Your task to perform on an android device: What is the recent news? Image 0: 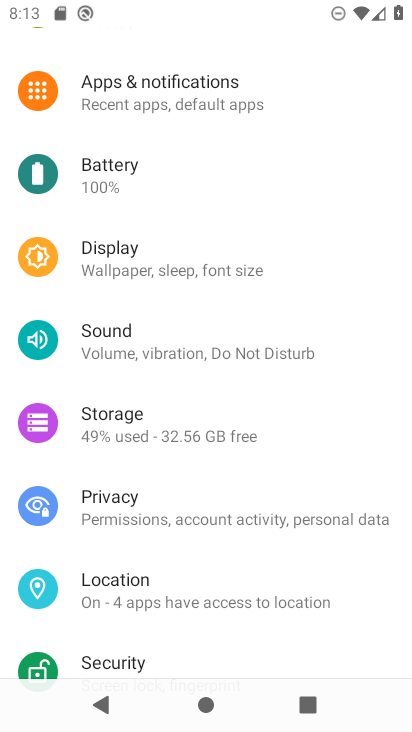
Step 0: press home button
Your task to perform on an android device: What is the recent news? Image 1: 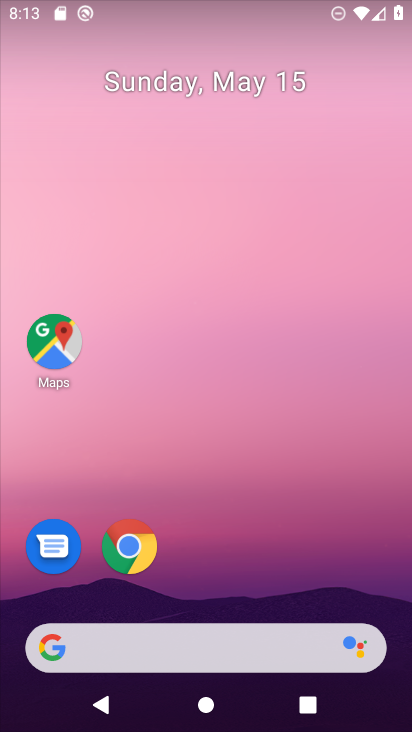
Step 1: click (228, 646)
Your task to perform on an android device: What is the recent news? Image 2: 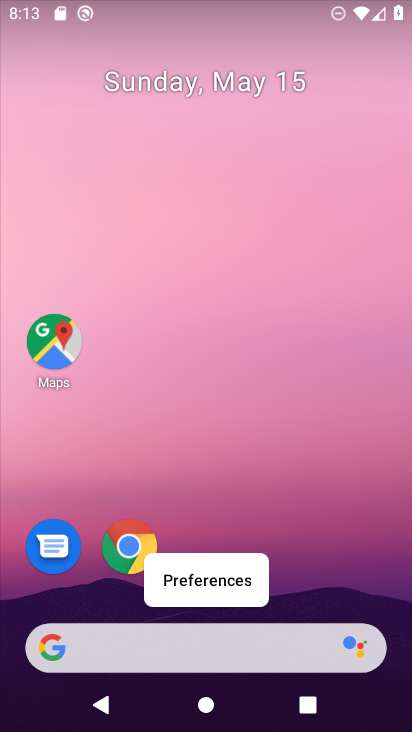
Step 2: click (242, 667)
Your task to perform on an android device: What is the recent news? Image 3: 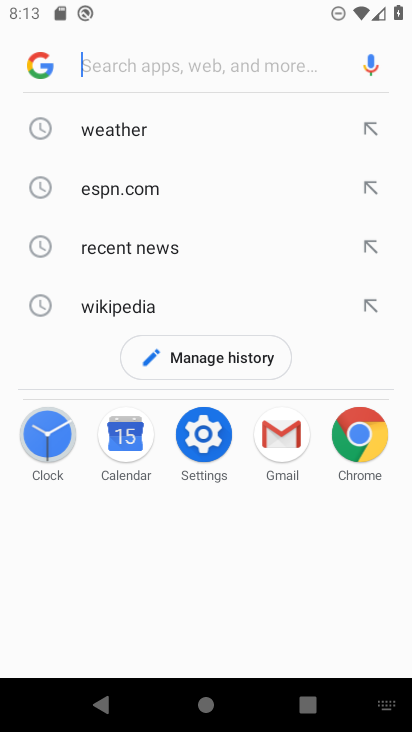
Step 3: click (89, 239)
Your task to perform on an android device: What is the recent news? Image 4: 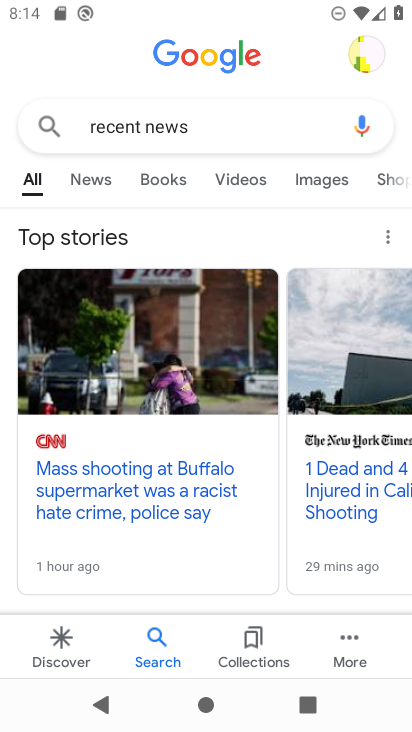
Step 4: task complete